Your task to perform on an android device: Open ESPN.com Image 0: 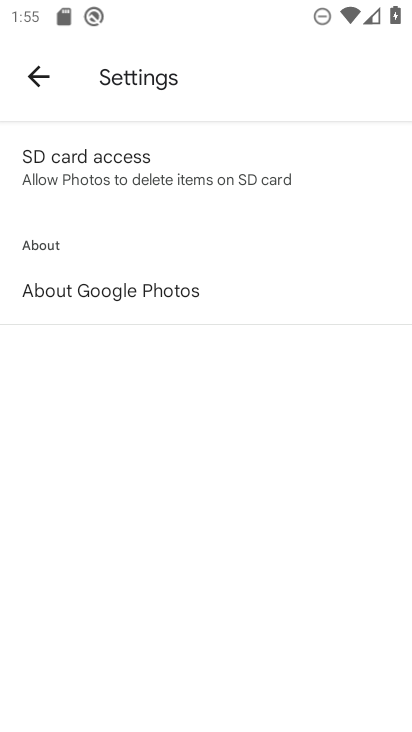
Step 0: drag from (225, 608) to (286, 300)
Your task to perform on an android device: Open ESPN.com Image 1: 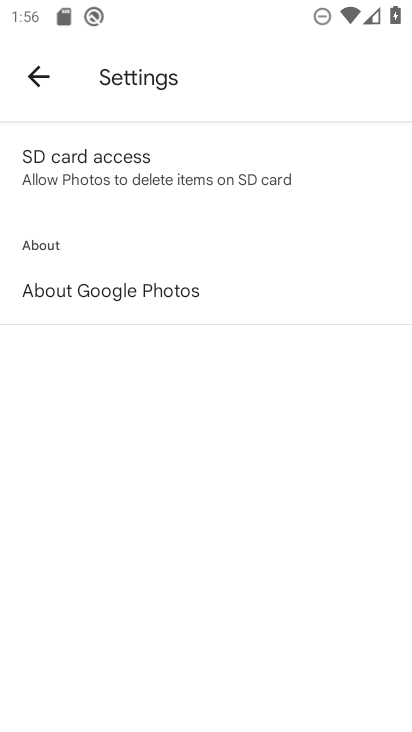
Step 1: press home button
Your task to perform on an android device: Open ESPN.com Image 2: 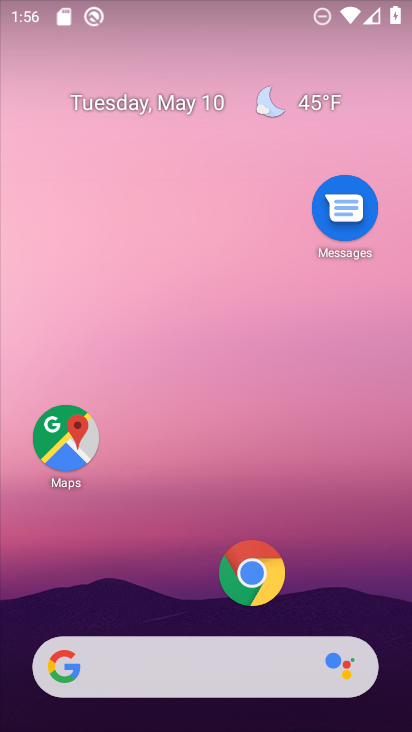
Step 2: drag from (173, 589) to (167, 93)
Your task to perform on an android device: Open ESPN.com Image 3: 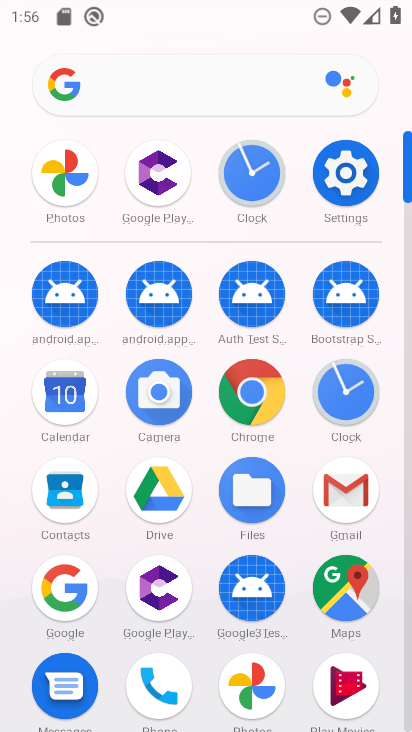
Step 3: click (170, 95)
Your task to perform on an android device: Open ESPN.com Image 4: 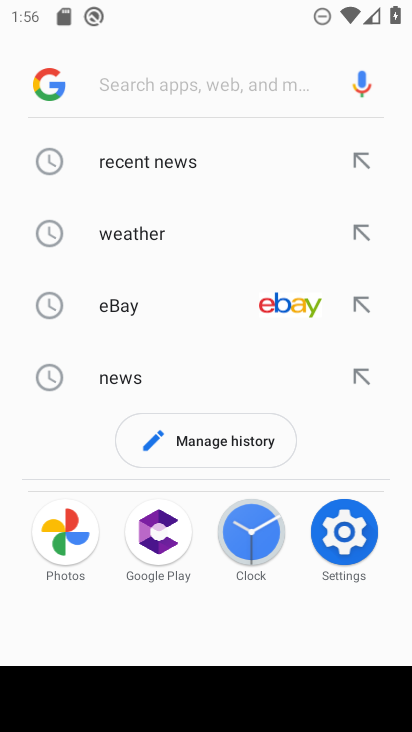
Step 4: type "espn.com"
Your task to perform on an android device: Open ESPN.com Image 5: 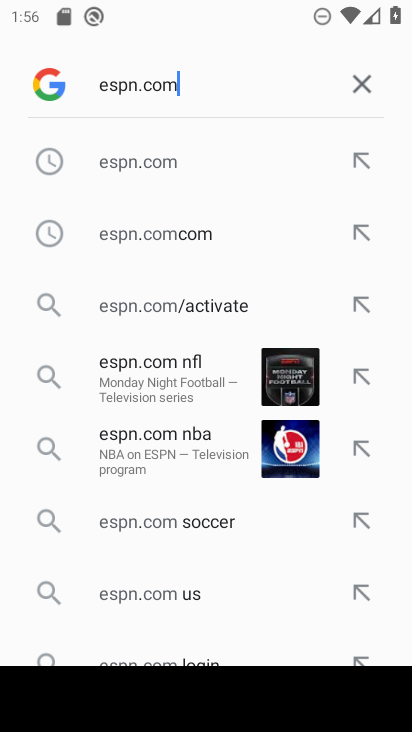
Step 5: click (187, 153)
Your task to perform on an android device: Open ESPN.com Image 6: 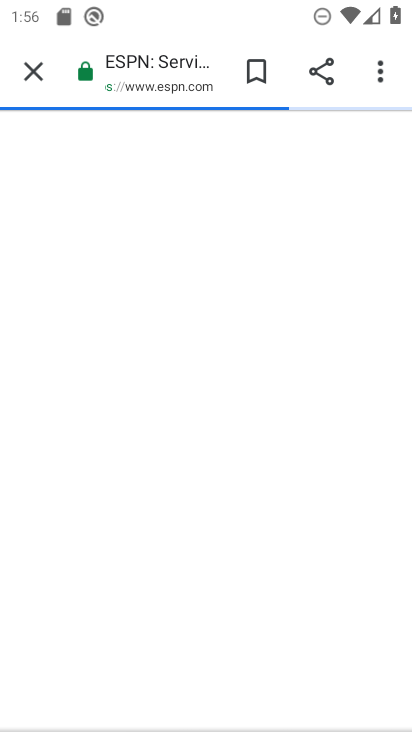
Step 6: task complete